Your task to perform on an android device: turn on translation in the chrome app Image 0: 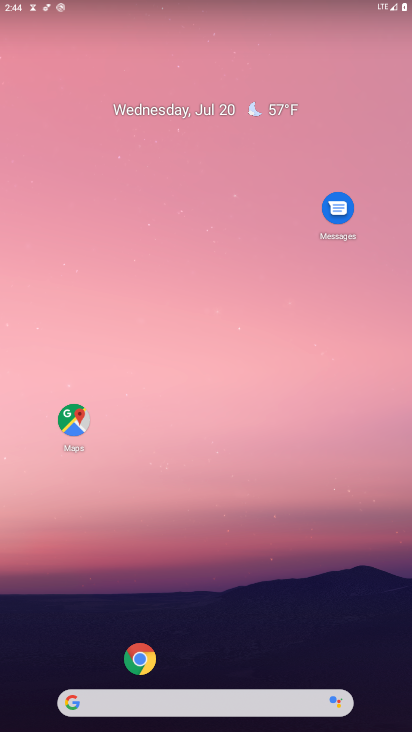
Step 0: click (137, 672)
Your task to perform on an android device: turn on translation in the chrome app Image 1: 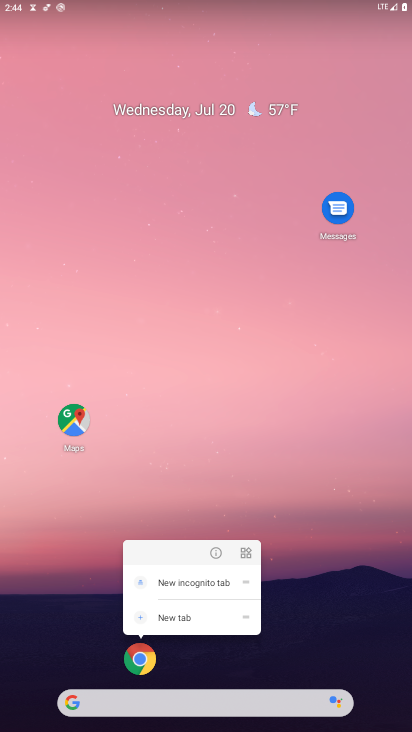
Step 1: click (140, 639)
Your task to perform on an android device: turn on translation in the chrome app Image 2: 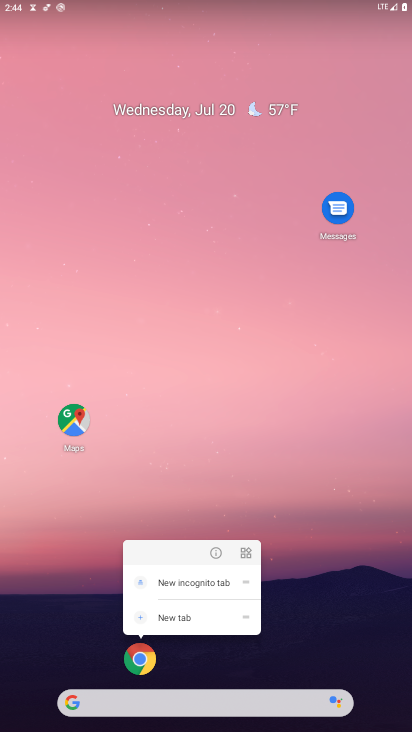
Step 2: click (145, 657)
Your task to perform on an android device: turn on translation in the chrome app Image 3: 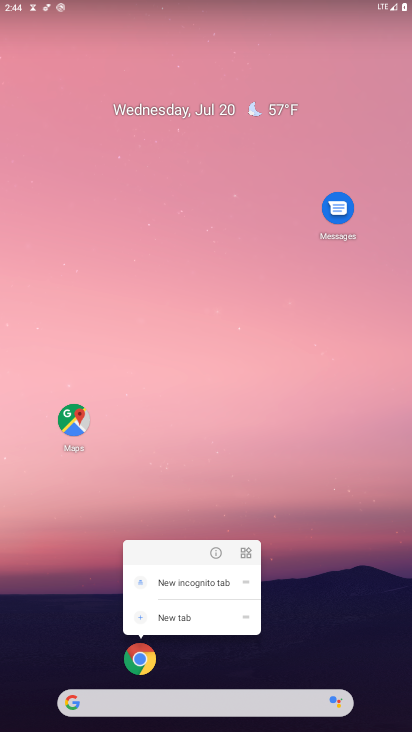
Step 3: click (139, 662)
Your task to perform on an android device: turn on translation in the chrome app Image 4: 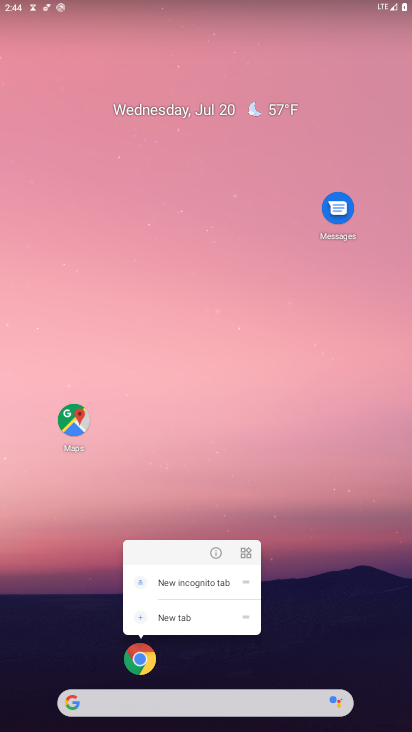
Step 4: task complete